Your task to perform on an android device: change the upload size in google photos Image 0: 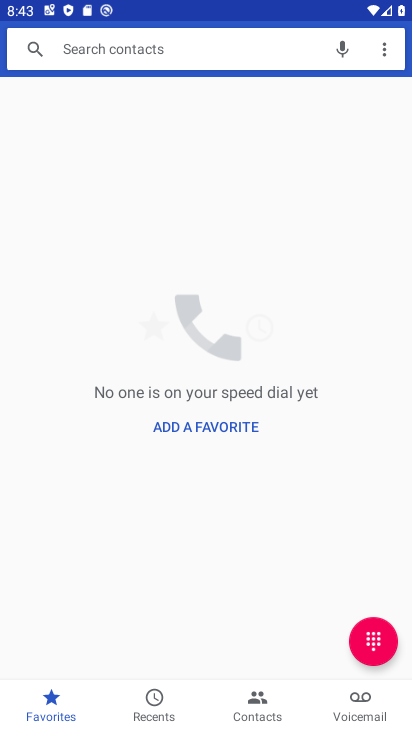
Step 0: press home button
Your task to perform on an android device: change the upload size in google photos Image 1: 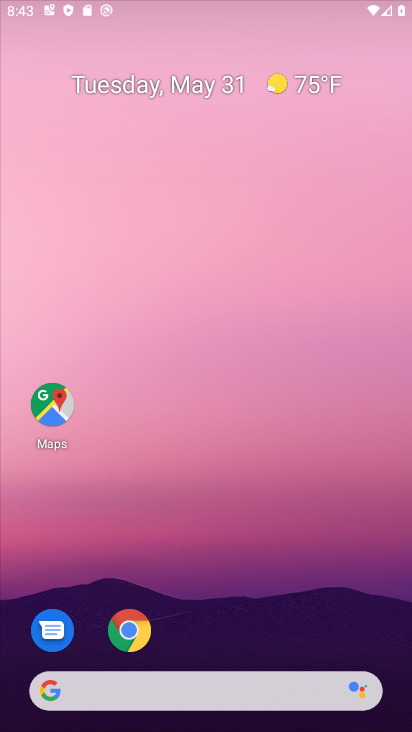
Step 1: drag from (233, 658) to (287, 169)
Your task to perform on an android device: change the upload size in google photos Image 2: 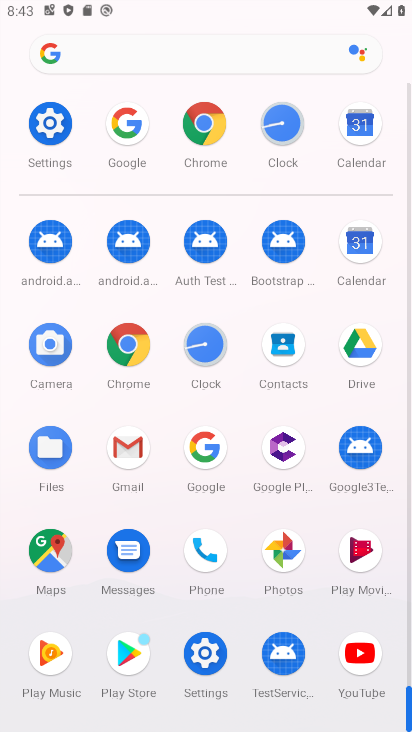
Step 2: click (274, 559)
Your task to perform on an android device: change the upload size in google photos Image 3: 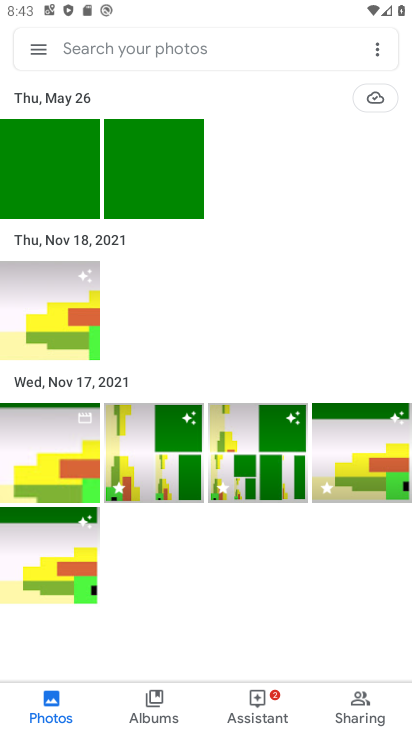
Step 3: click (45, 53)
Your task to perform on an android device: change the upload size in google photos Image 4: 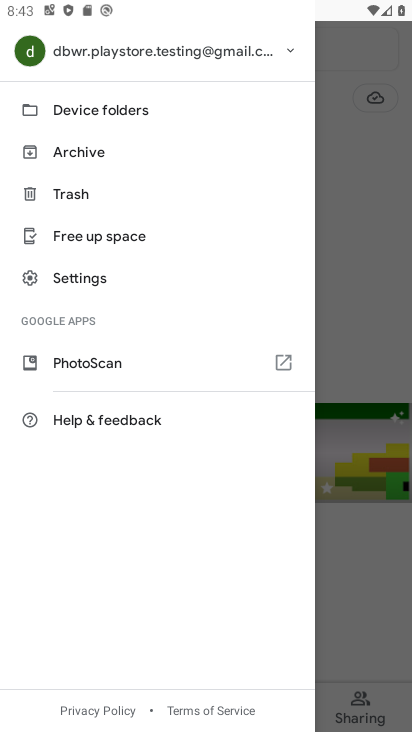
Step 4: click (71, 285)
Your task to perform on an android device: change the upload size in google photos Image 5: 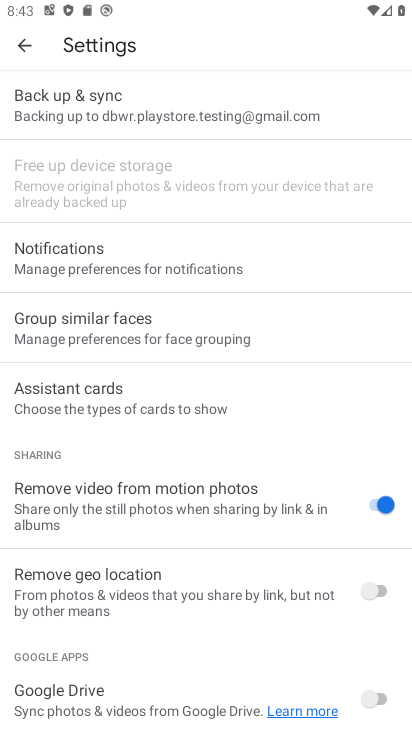
Step 5: click (159, 110)
Your task to perform on an android device: change the upload size in google photos Image 6: 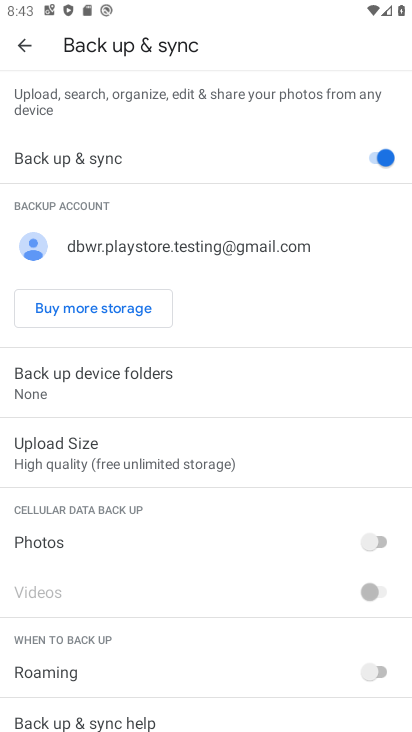
Step 6: click (101, 446)
Your task to perform on an android device: change the upload size in google photos Image 7: 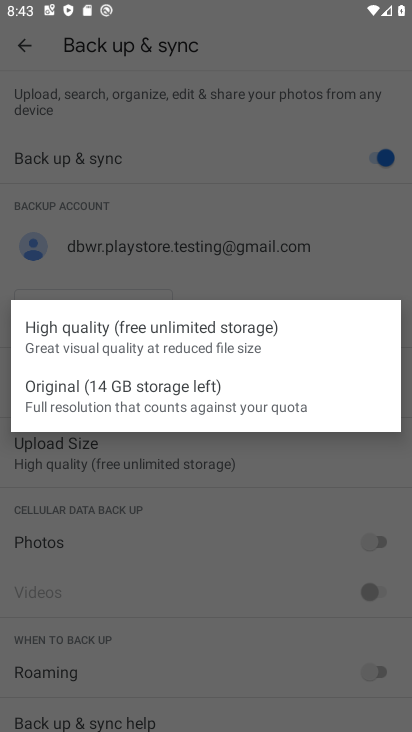
Step 7: click (108, 396)
Your task to perform on an android device: change the upload size in google photos Image 8: 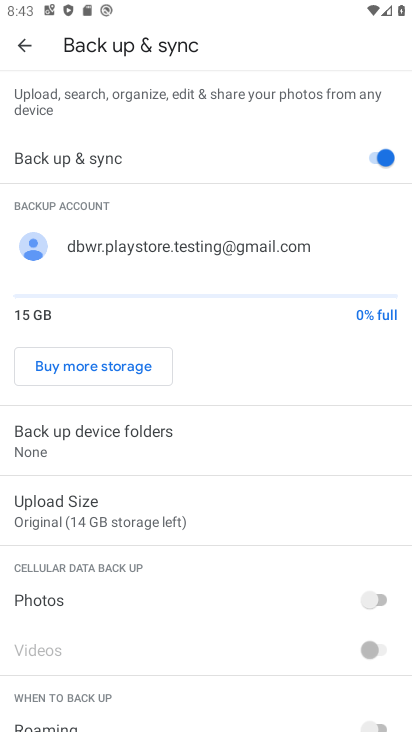
Step 8: task complete